Your task to perform on an android device: Go to internet settings Image 0: 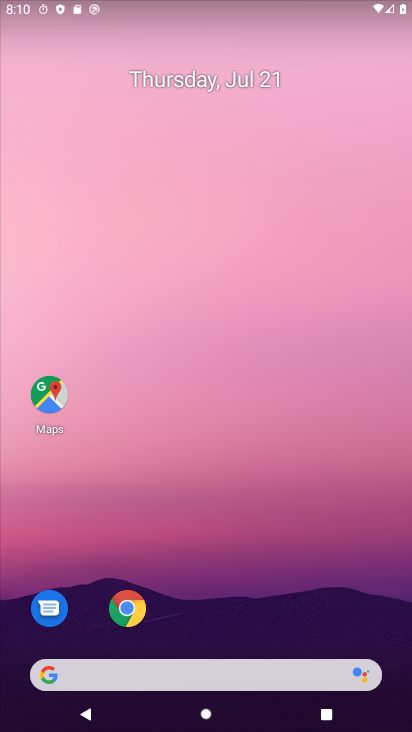
Step 0: press home button
Your task to perform on an android device: Go to internet settings Image 1: 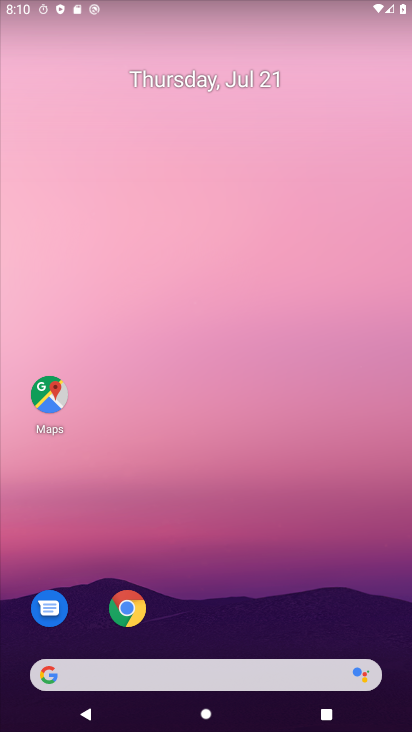
Step 1: drag from (266, 669) to (349, 52)
Your task to perform on an android device: Go to internet settings Image 2: 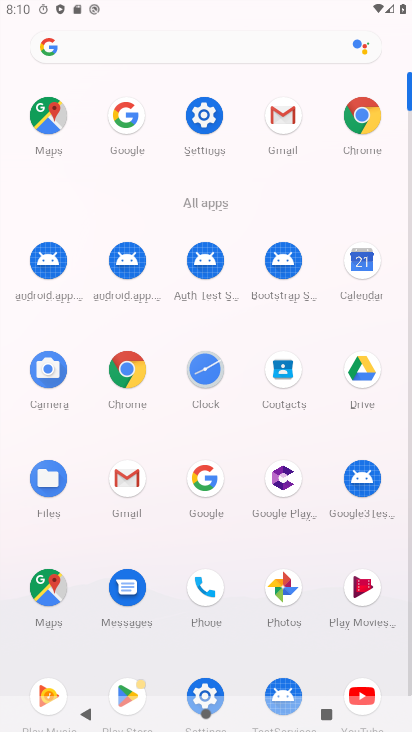
Step 2: click (202, 684)
Your task to perform on an android device: Go to internet settings Image 3: 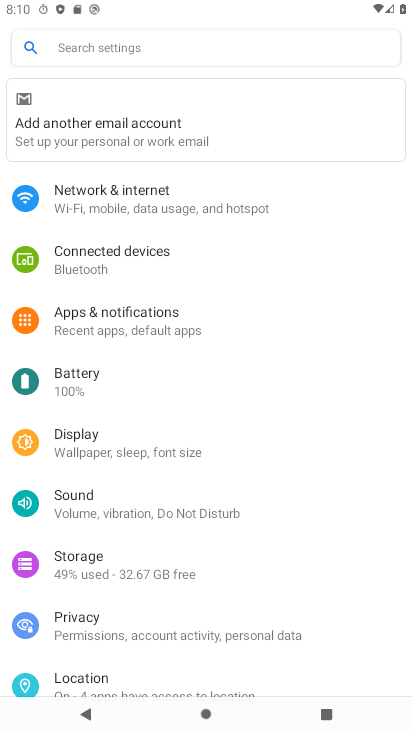
Step 3: click (83, 204)
Your task to perform on an android device: Go to internet settings Image 4: 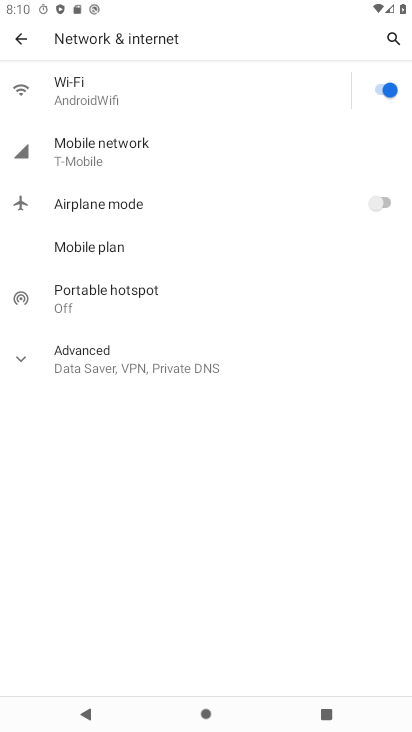
Step 4: click (108, 347)
Your task to perform on an android device: Go to internet settings Image 5: 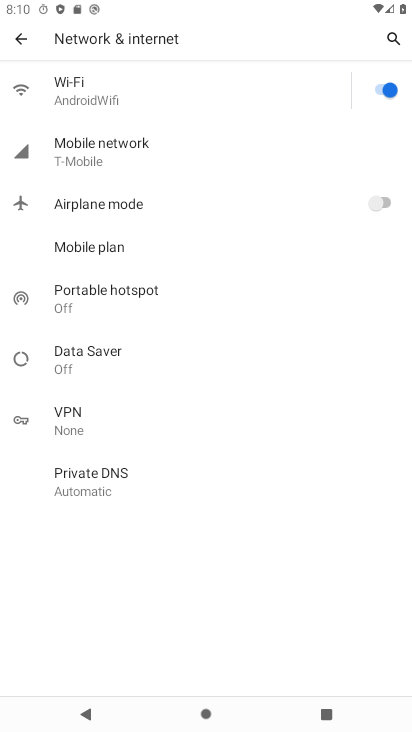
Step 5: task complete